Your task to perform on an android device: search for starred emails in the gmail app Image 0: 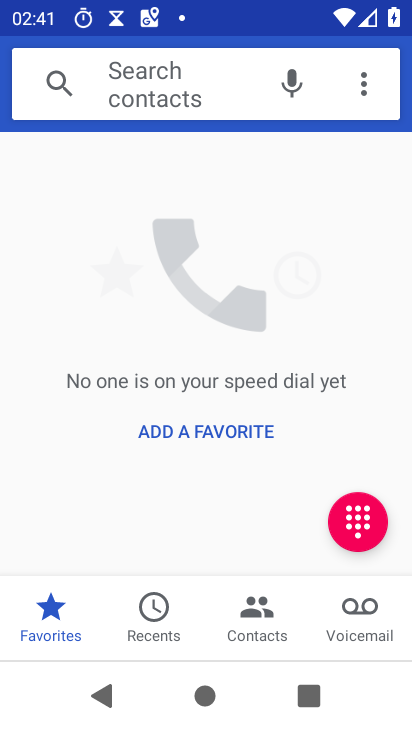
Step 0: press home button
Your task to perform on an android device: search for starred emails in the gmail app Image 1: 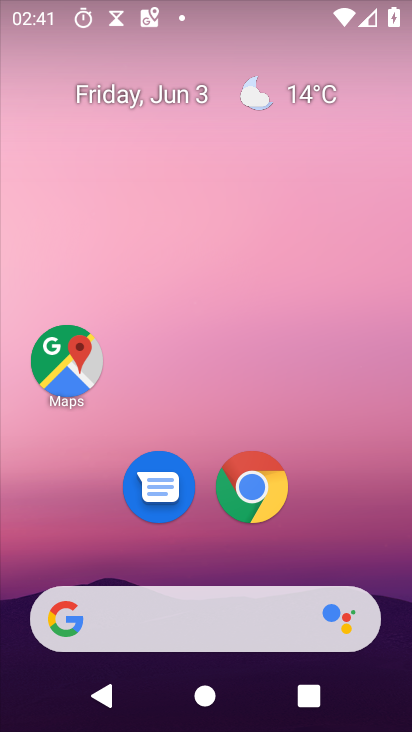
Step 1: drag from (319, 483) to (127, 0)
Your task to perform on an android device: search for starred emails in the gmail app Image 2: 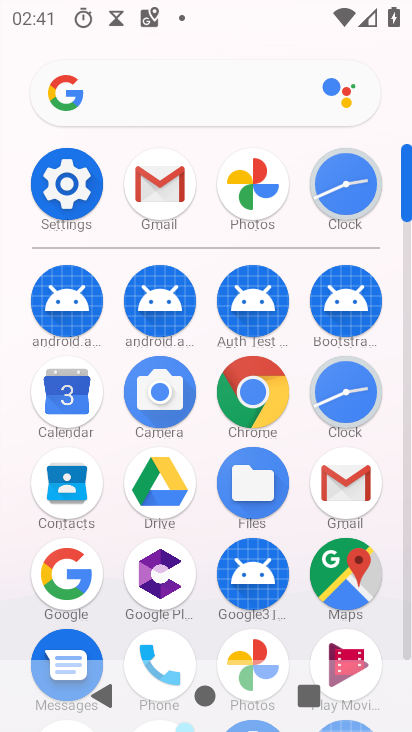
Step 2: click (357, 498)
Your task to perform on an android device: search for starred emails in the gmail app Image 3: 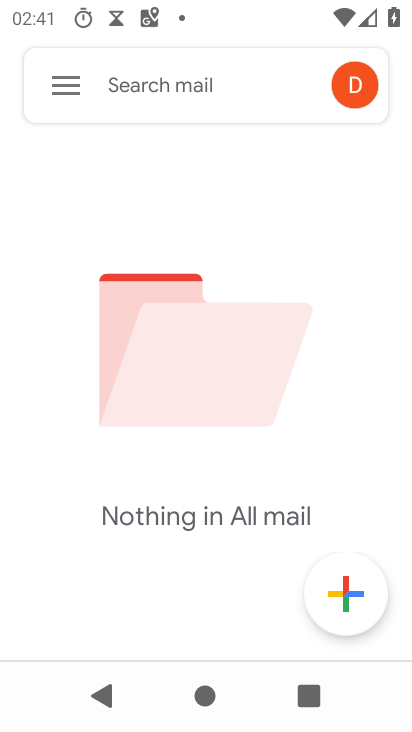
Step 3: click (195, 99)
Your task to perform on an android device: search for starred emails in the gmail app Image 4: 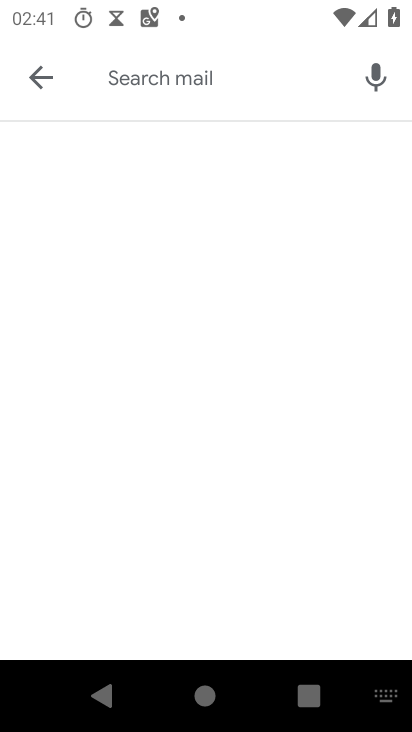
Step 4: type "starreed]"
Your task to perform on an android device: search for starred emails in the gmail app Image 5: 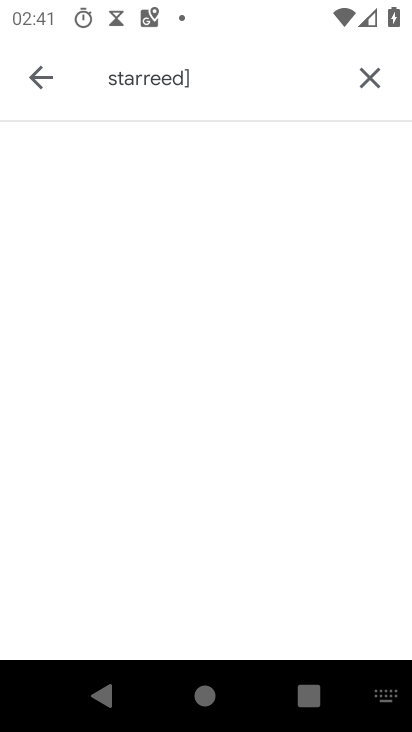
Step 5: click (373, 70)
Your task to perform on an android device: search for starred emails in the gmail app Image 6: 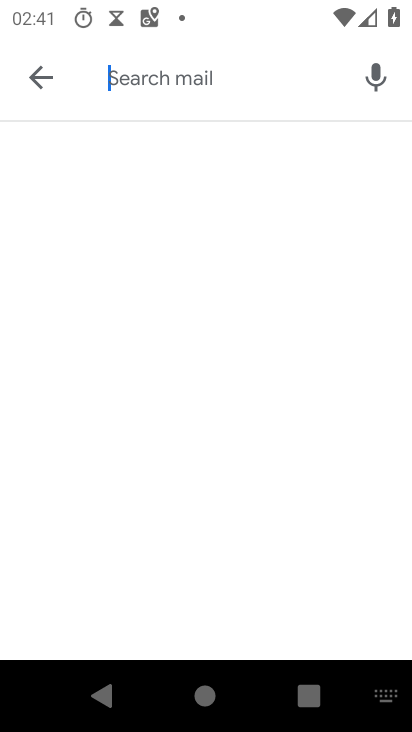
Step 6: click (160, 79)
Your task to perform on an android device: search for starred emails in the gmail app Image 7: 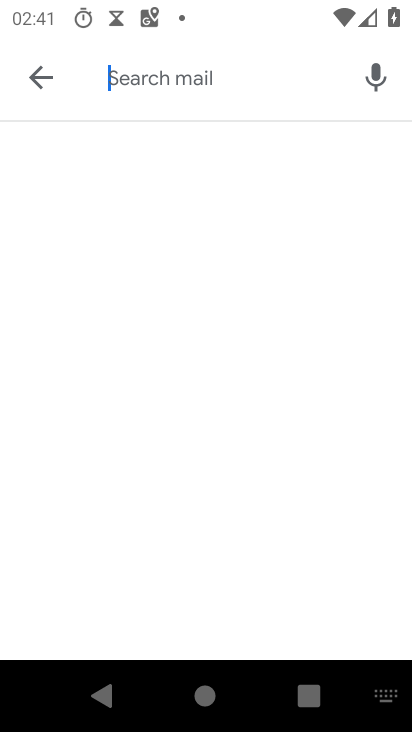
Step 7: type "starred"
Your task to perform on an android device: search for starred emails in the gmail app Image 8: 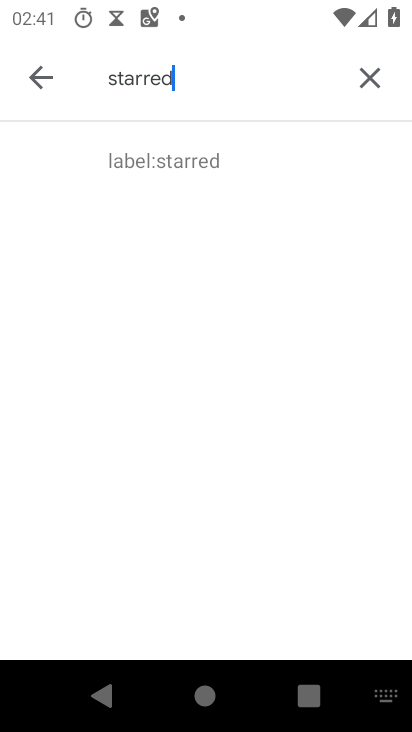
Step 8: click (163, 151)
Your task to perform on an android device: search for starred emails in the gmail app Image 9: 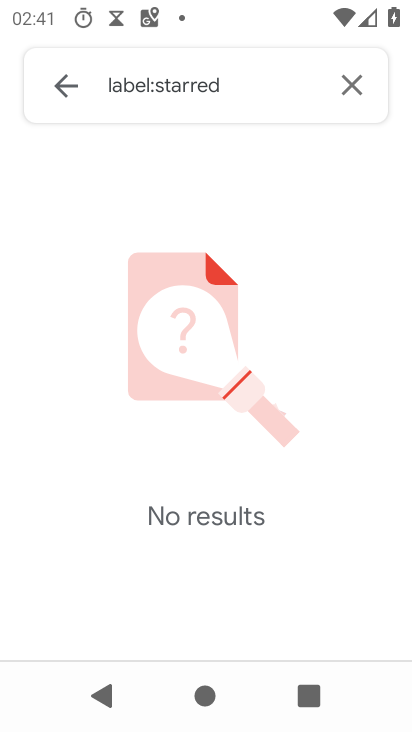
Step 9: task complete